Your task to perform on an android device: turn on airplane mode Image 0: 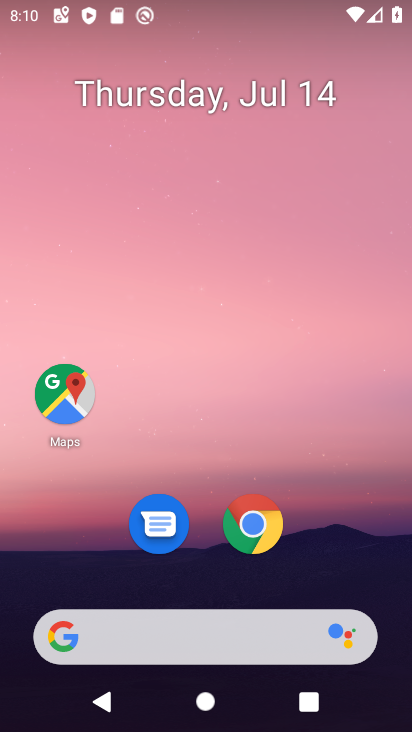
Step 0: drag from (330, 545) to (328, 57)
Your task to perform on an android device: turn on airplane mode Image 1: 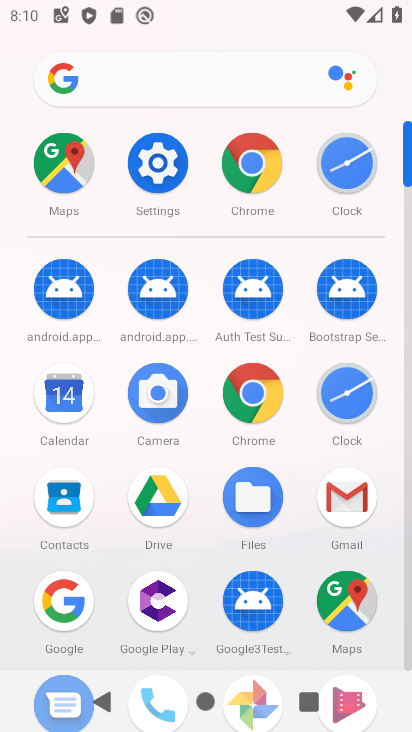
Step 1: click (165, 175)
Your task to perform on an android device: turn on airplane mode Image 2: 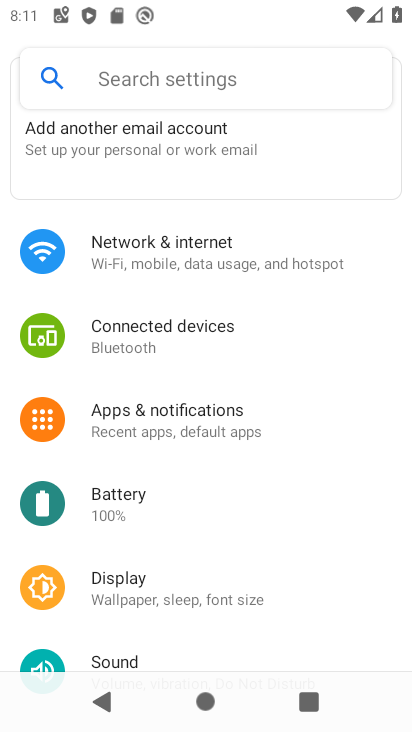
Step 2: click (261, 262)
Your task to perform on an android device: turn on airplane mode Image 3: 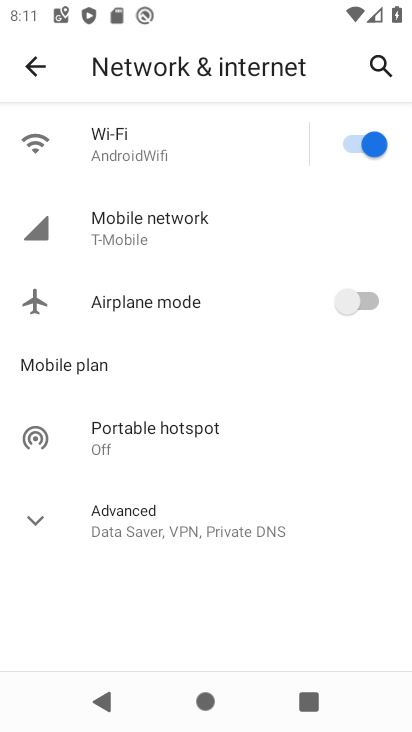
Step 3: click (358, 298)
Your task to perform on an android device: turn on airplane mode Image 4: 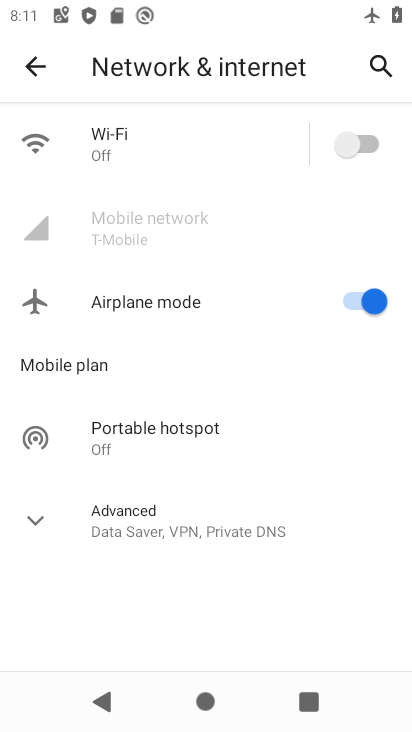
Step 4: task complete